Your task to perform on an android device: open wifi settings Image 0: 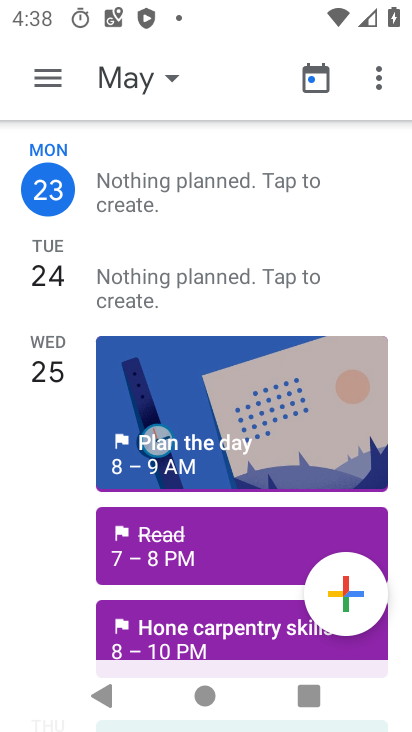
Step 0: press home button
Your task to perform on an android device: open wifi settings Image 1: 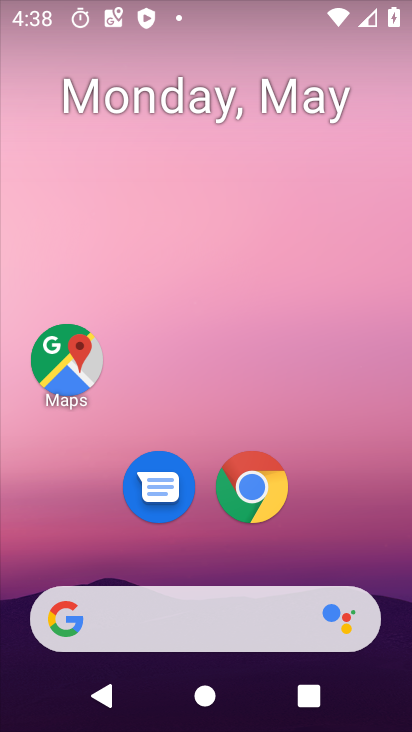
Step 1: drag from (194, 567) to (206, 293)
Your task to perform on an android device: open wifi settings Image 2: 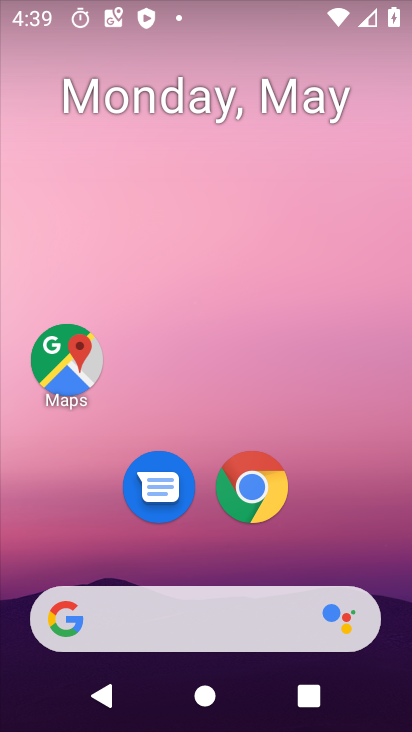
Step 2: drag from (270, 577) to (267, 69)
Your task to perform on an android device: open wifi settings Image 3: 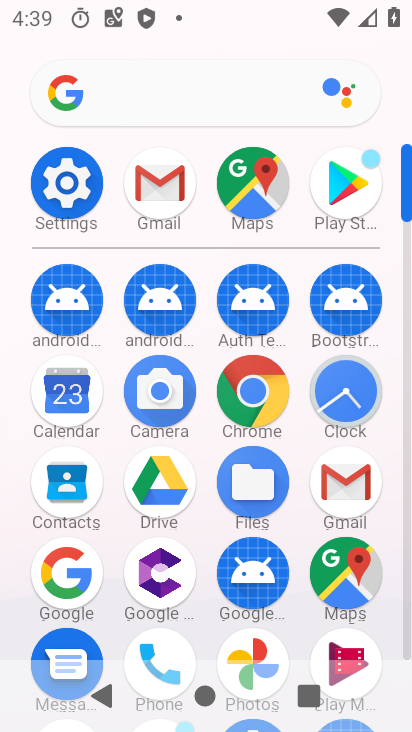
Step 3: click (71, 187)
Your task to perform on an android device: open wifi settings Image 4: 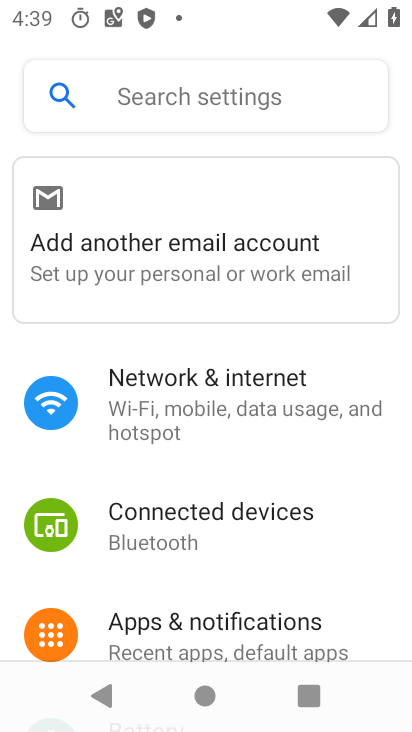
Step 4: click (175, 367)
Your task to perform on an android device: open wifi settings Image 5: 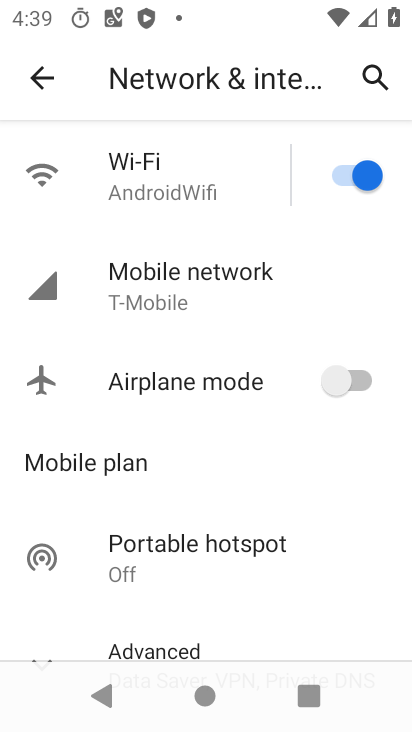
Step 5: click (134, 168)
Your task to perform on an android device: open wifi settings Image 6: 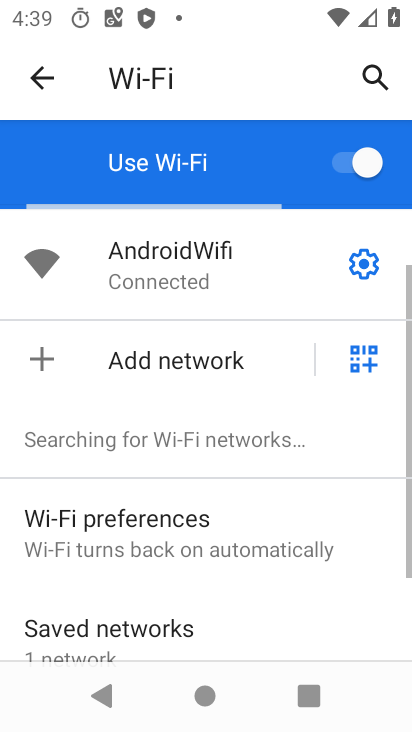
Step 6: click (370, 274)
Your task to perform on an android device: open wifi settings Image 7: 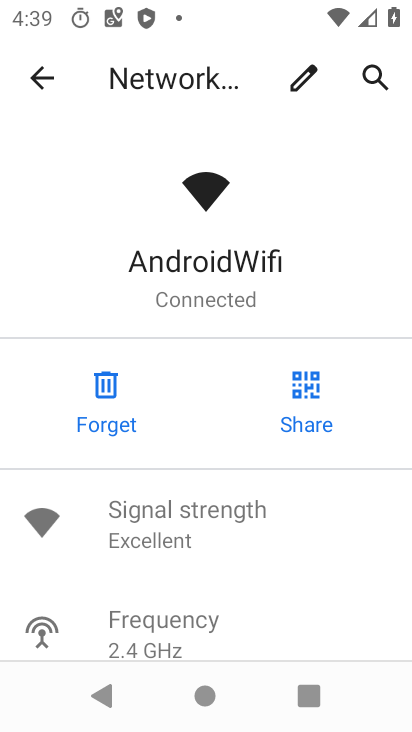
Step 7: task complete